Your task to perform on an android device: clear history in the chrome app Image 0: 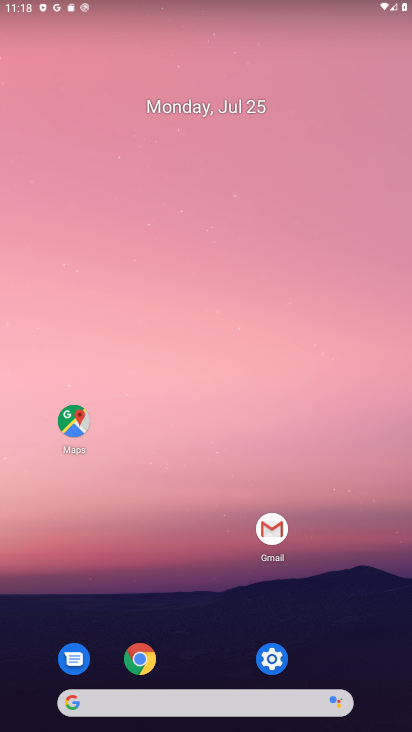
Step 0: click (130, 662)
Your task to perform on an android device: clear history in the chrome app Image 1: 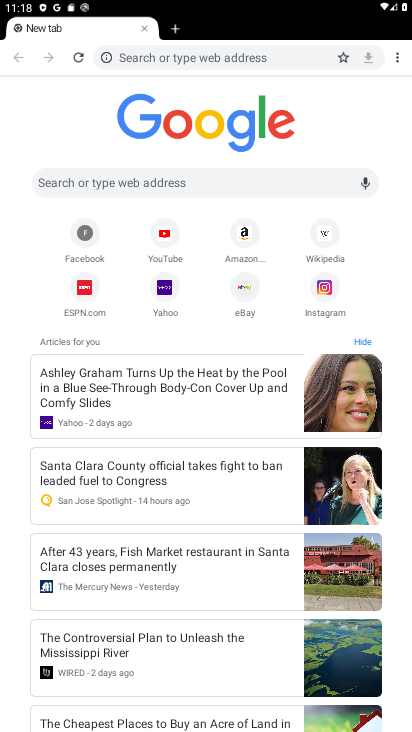
Step 1: click (397, 53)
Your task to perform on an android device: clear history in the chrome app Image 2: 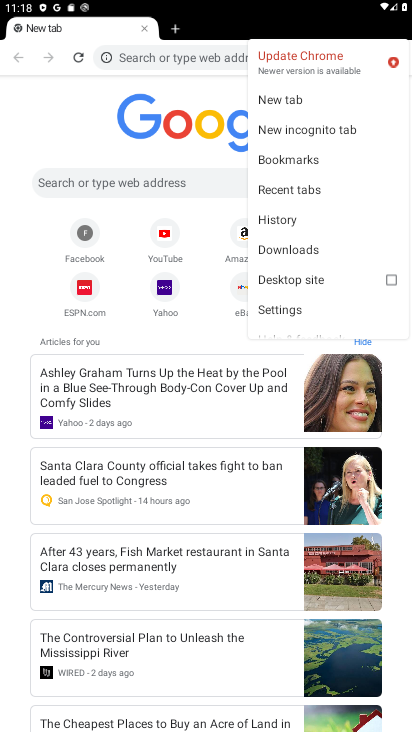
Step 2: click (269, 222)
Your task to perform on an android device: clear history in the chrome app Image 3: 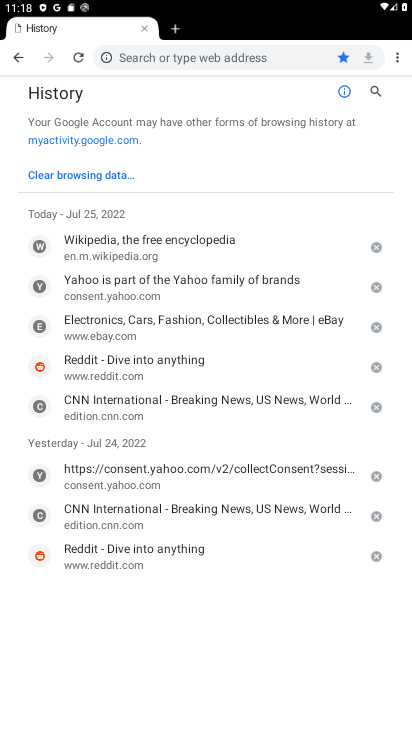
Step 3: click (56, 191)
Your task to perform on an android device: clear history in the chrome app Image 4: 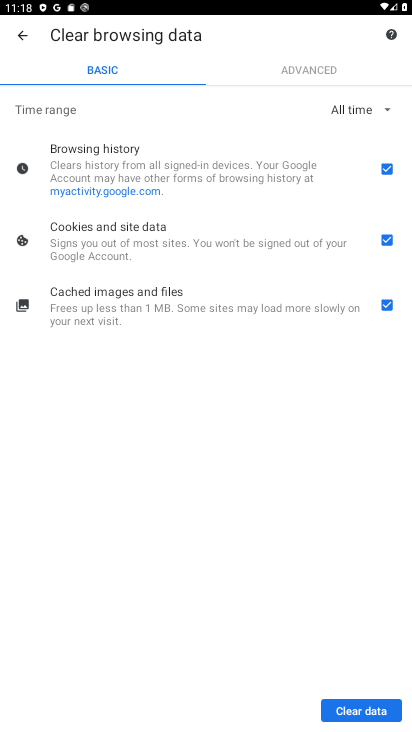
Step 4: click (366, 714)
Your task to perform on an android device: clear history in the chrome app Image 5: 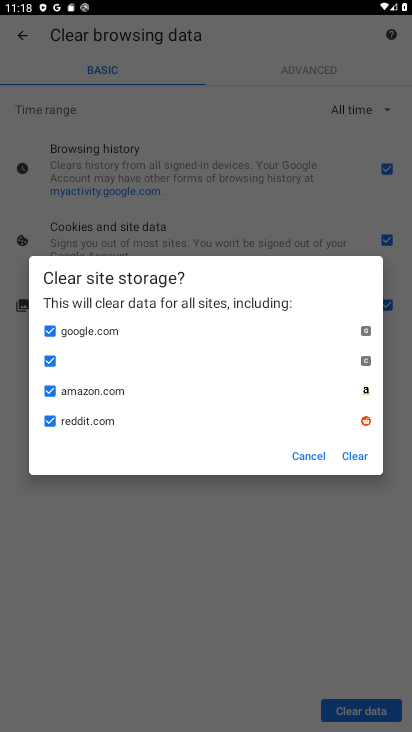
Step 5: click (359, 454)
Your task to perform on an android device: clear history in the chrome app Image 6: 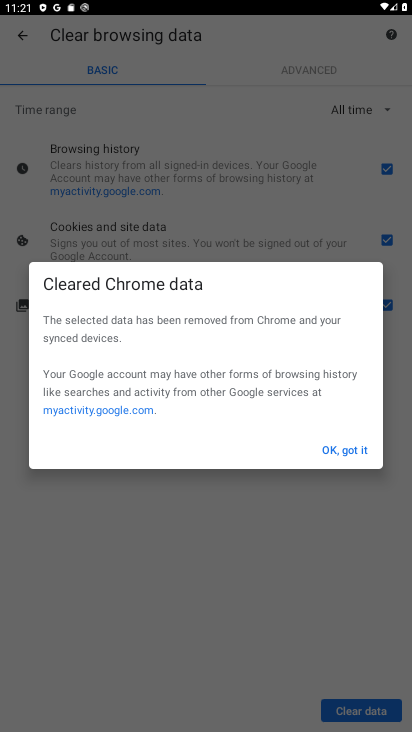
Step 6: task complete